Your task to perform on an android device: manage bookmarks in the chrome app Image 0: 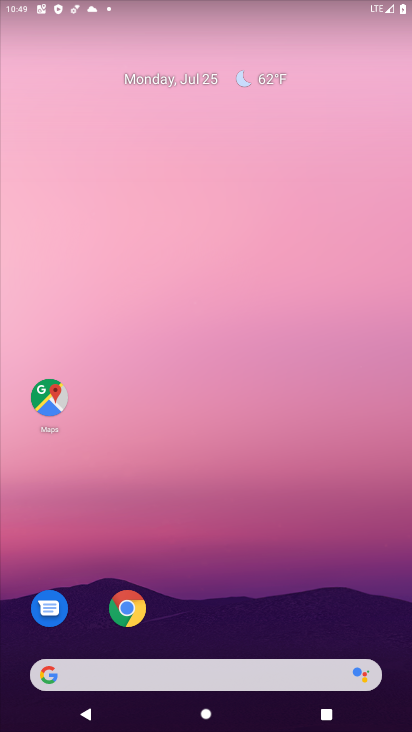
Step 0: click (120, 618)
Your task to perform on an android device: manage bookmarks in the chrome app Image 1: 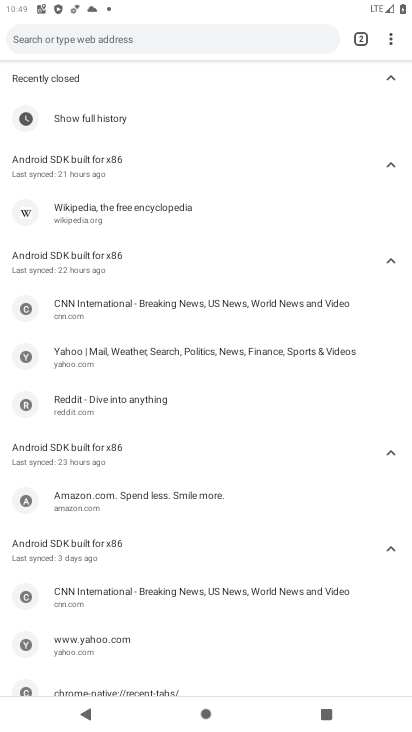
Step 1: click (388, 27)
Your task to perform on an android device: manage bookmarks in the chrome app Image 2: 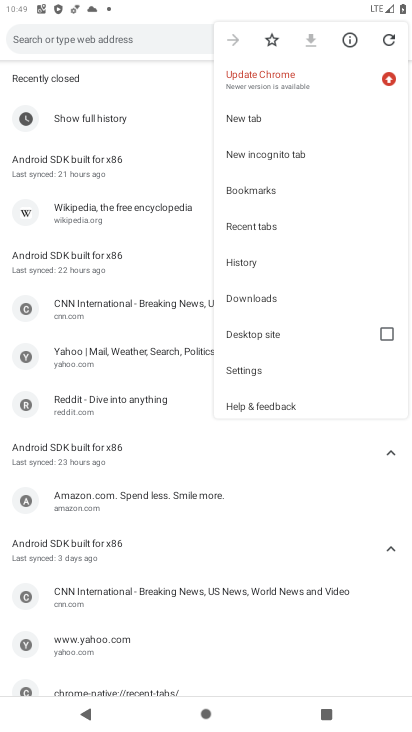
Step 2: click (246, 176)
Your task to perform on an android device: manage bookmarks in the chrome app Image 3: 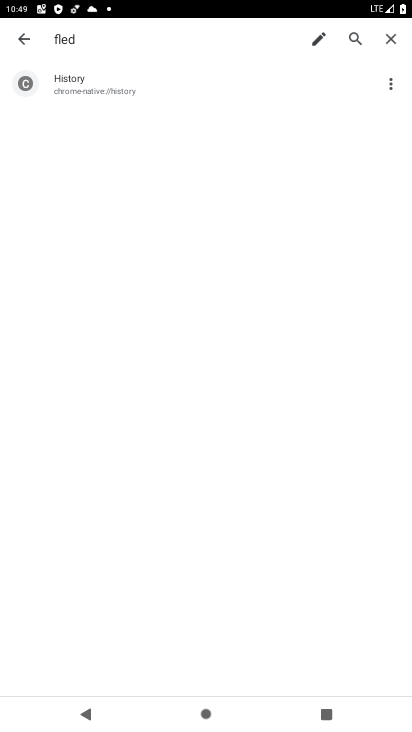
Step 3: click (17, 37)
Your task to perform on an android device: manage bookmarks in the chrome app Image 4: 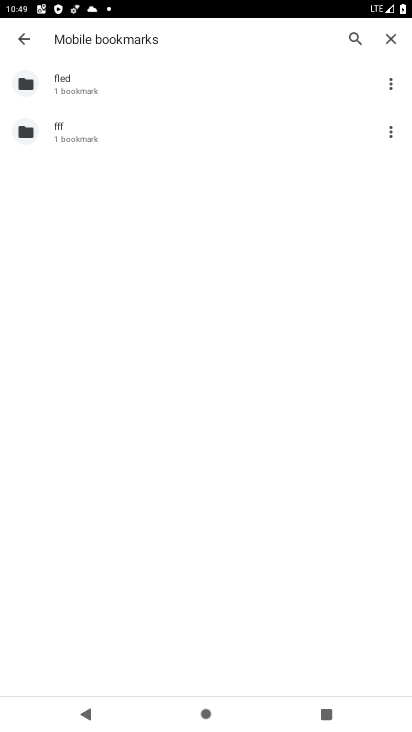
Step 4: click (376, 84)
Your task to perform on an android device: manage bookmarks in the chrome app Image 5: 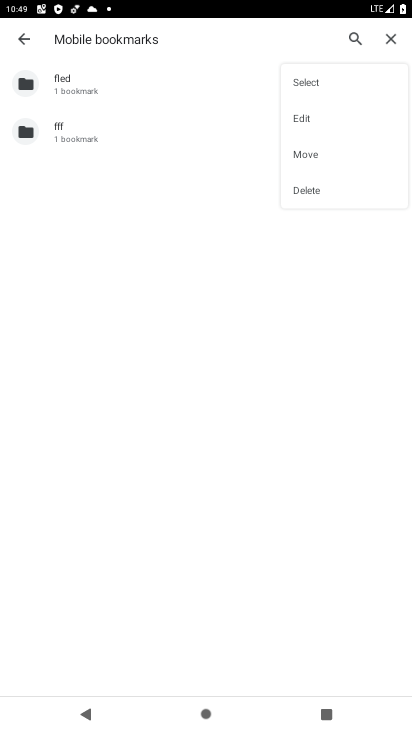
Step 5: click (300, 122)
Your task to perform on an android device: manage bookmarks in the chrome app Image 6: 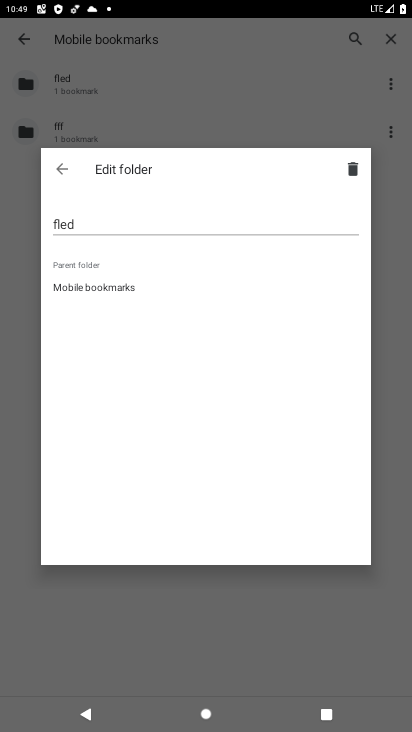
Step 6: click (112, 223)
Your task to perform on an android device: manage bookmarks in the chrome app Image 7: 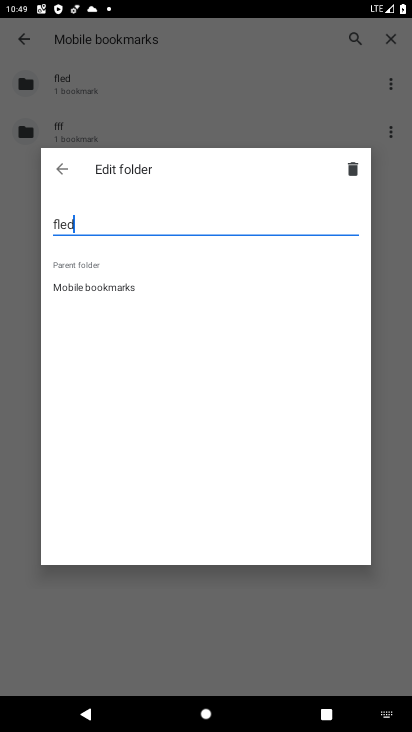
Step 7: type "daisey"
Your task to perform on an android device: manage bookmarks in the chrome app Image 8: 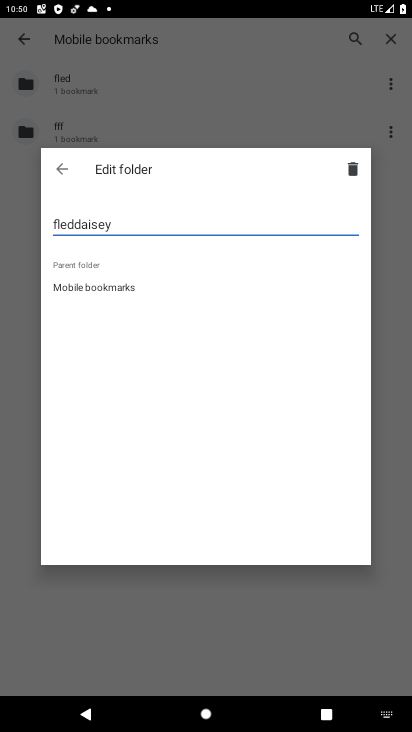
Step 8: click (59, 157)
Your task to perform on an android device: manage bookmarks in the chrome app Image 9: 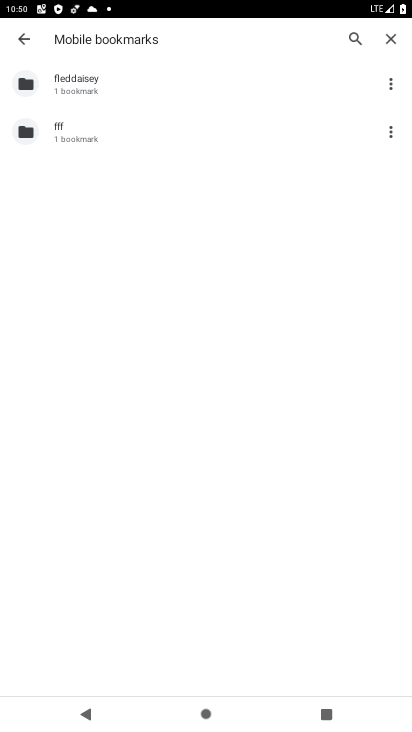
Step 9: task complete